Your task to perform on an android device: stop showing notifications on the lock screen Image 0: 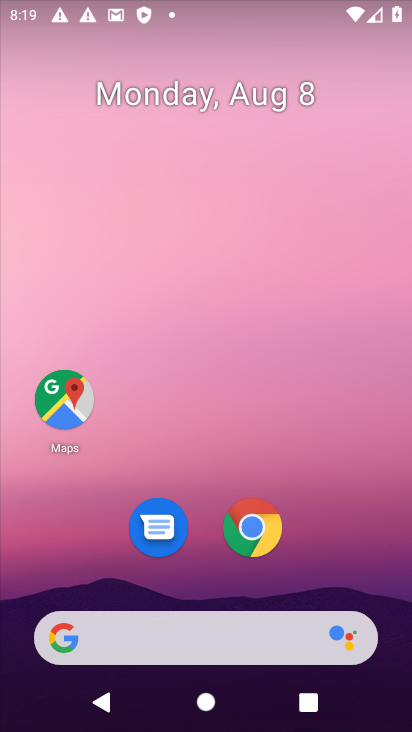
Step 0: drag from (390, 704) to (119, 10)
Your task to perform on an android device: stop showing notifications on the lock screen Image 1: 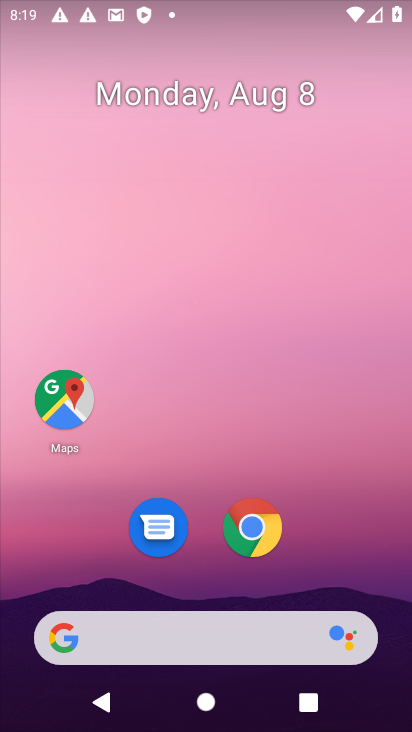
Step 1: drag from (396, 711) to (247, 144)
Your task to perform on an android device: stop showing notifications on the lock screen Image 2: 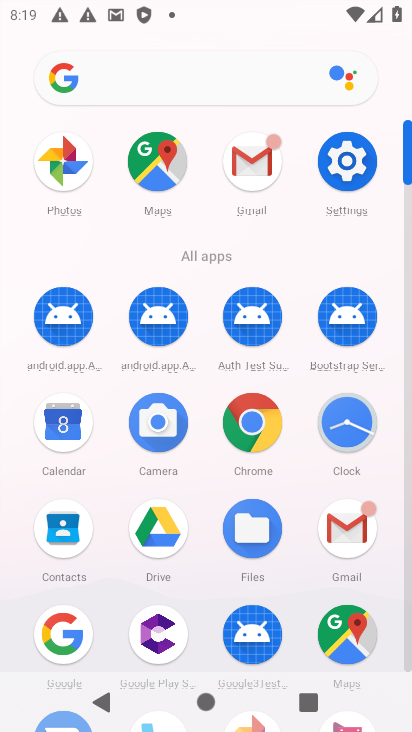
Step 2: click (344, 163)
Your task to perform on an android device: stop showing notifications on the lock screen Image 3: 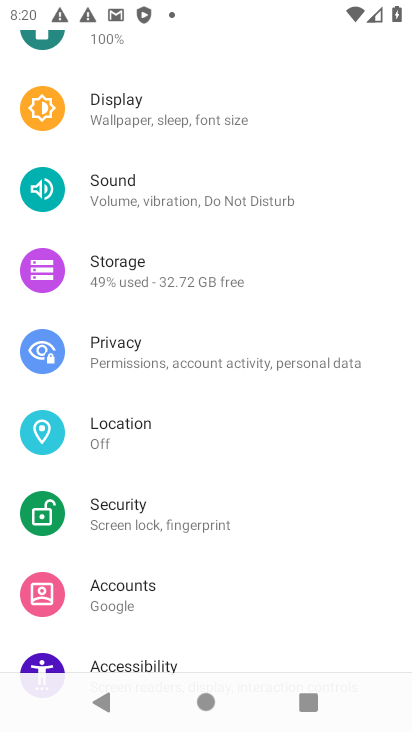
Step 3: drag from (311, 66) to (409, 429)
Your task to perform on an android device: stop showing notifications on the lock screen Image 4: 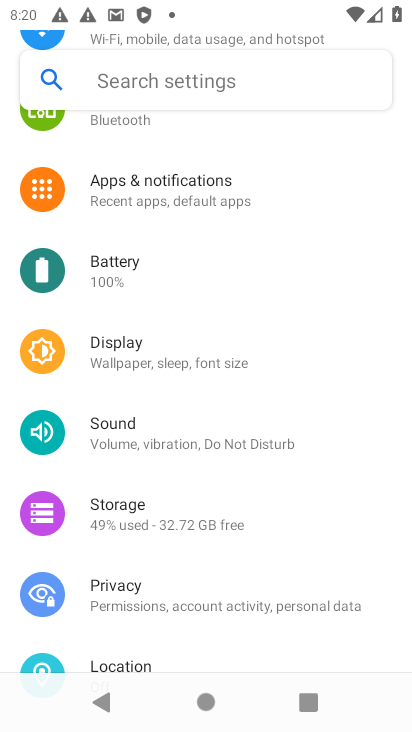
Step 4: click (190, 172)
Your task to perform on an android device: stop showing notifications on the lock screen Image 5: 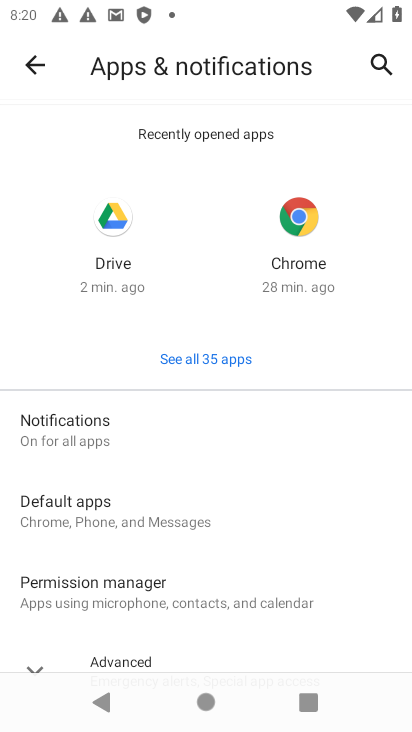
Step 5: click (33, 666)
Your task to perform on an android device: stop showing notifications on the lock screen Image 6: 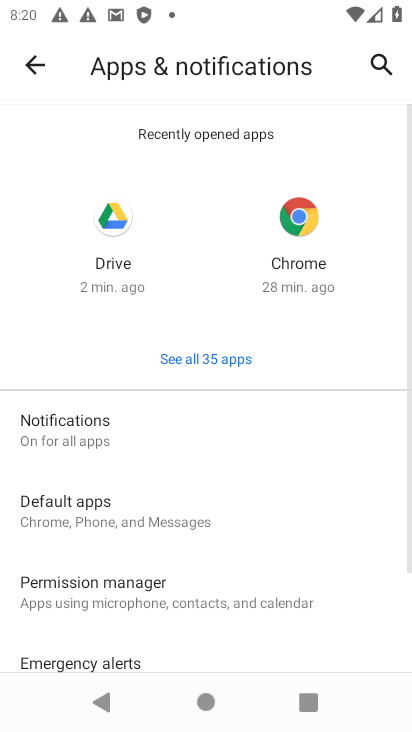
Step 6: drag from (189, 643) to (147, 112)
Your task to perform on an android device: stop showing notifications on the lock screen Image 7: 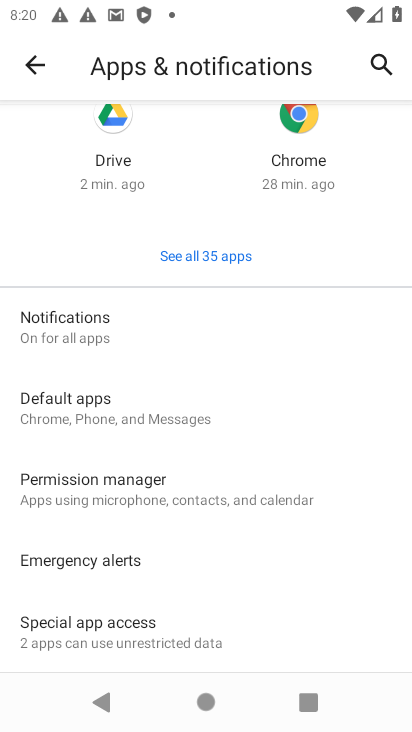
Step 7: click (61, 334)
Your task to perform on an android device: stop showing notifications on the lock screen Image 8: 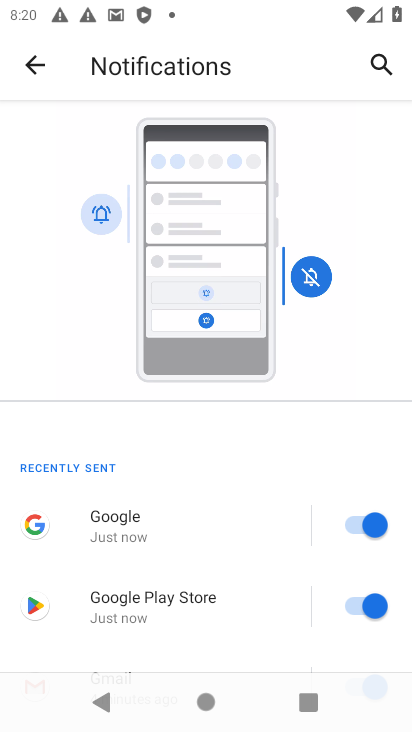
Step 8: drag from (253, 630) to (99, 78)
Your task to perform on an android device: stop showing notifications on the lock screen Image 9: 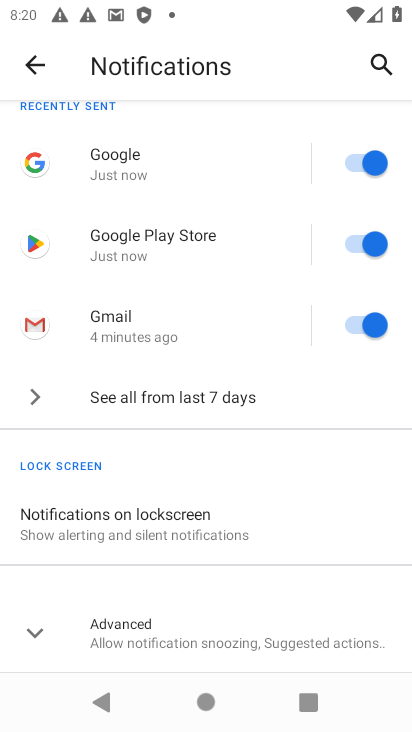
Step 9: click (189, 506)
Your task to perform on an android device: stop showing notifications on the lock screen Image 10: 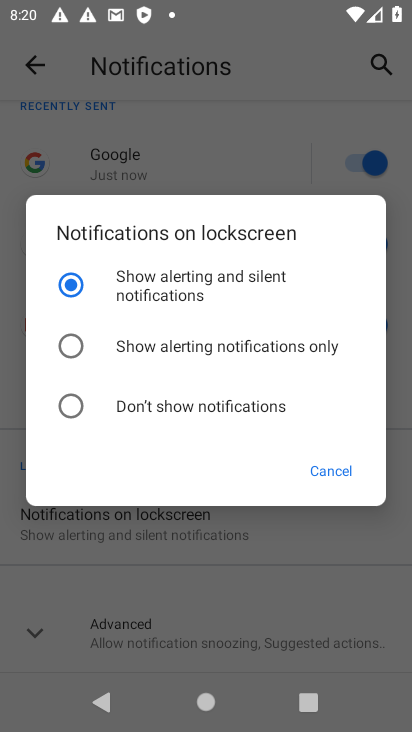
Step 10: click (61, 401)
Your task to perform on an android device: stop showing notifications on the lock screen Image 11: 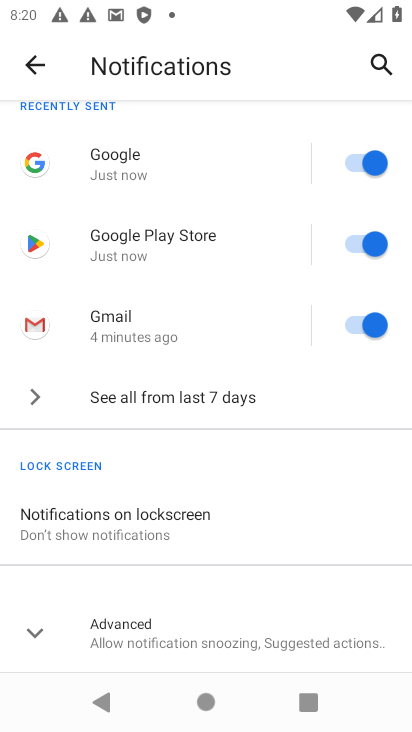
Step 11: task complete